Your task to perform on an android device: check android version Image 0: 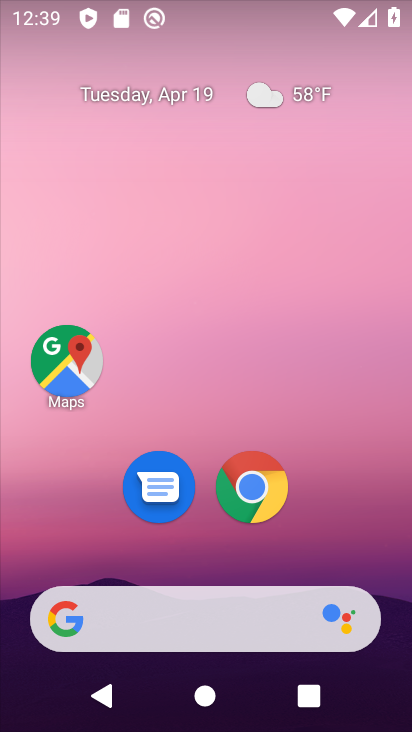
Step 0: drag from (206, 714) to (207, 74)
Your task to perform on an android device: check android version Image 1: 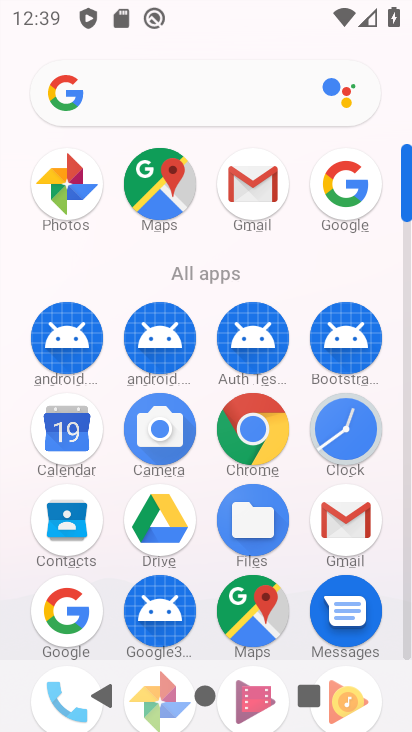
Step 1: drag from (202, 628) to (206, 218)
Your task to perform on an android device: check android version Image 2: 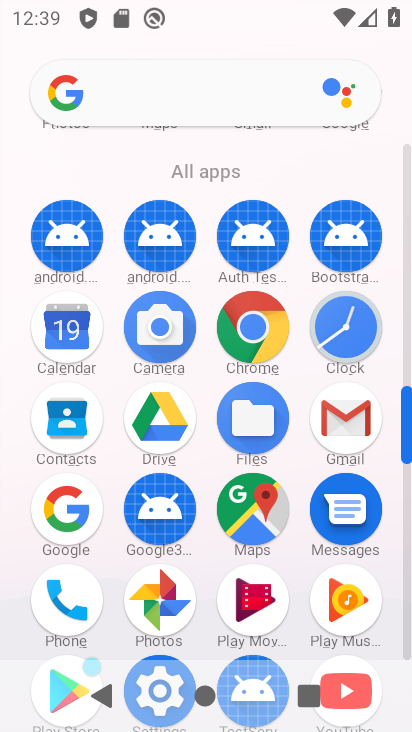
Step 2: drag from (297, 634) to (241, 99)
Your task to perform on an android device: check android version Image 3: 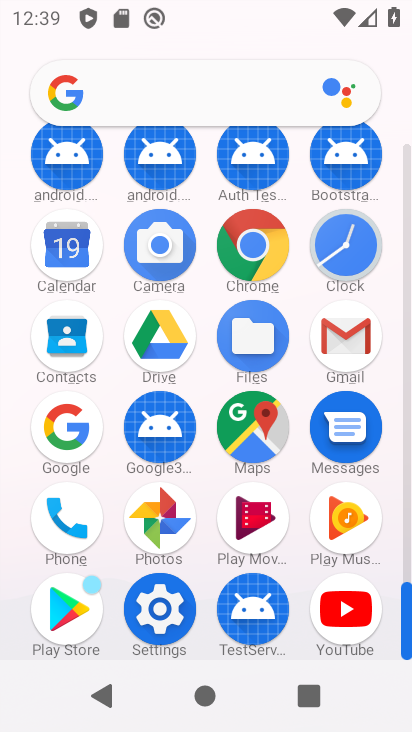
Step 3: click (162, 611)
Your task to perform on an android device: check android version Image 4: 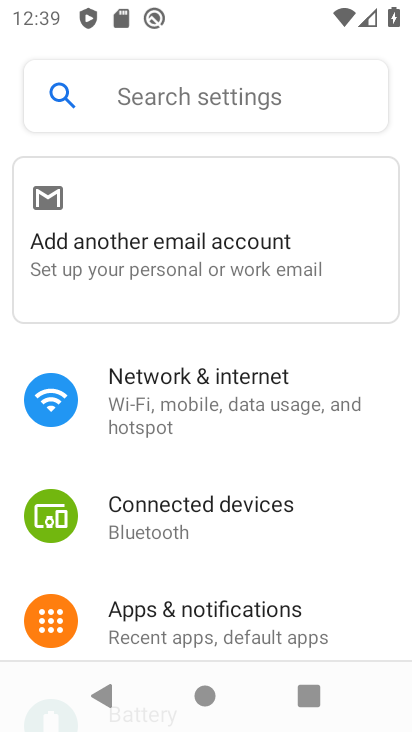
Step 4: drag from (225, 590) to (230, 56)
Your task to perform on an android device: check android version Image 5: 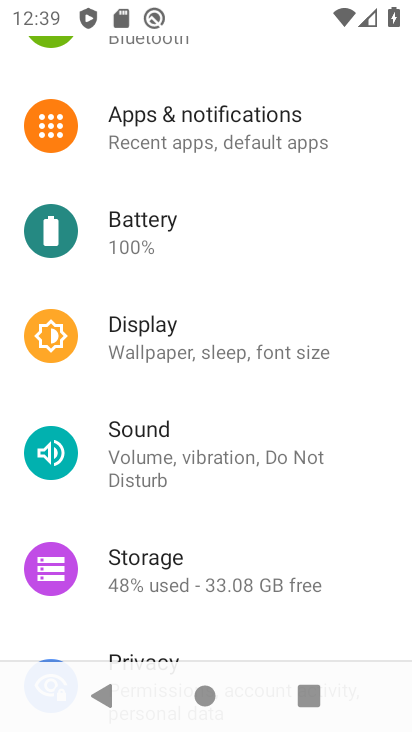
Step 5: drag from (216, 610) to (217, 105)
Your task to perform on an android device: check android version Image 6: 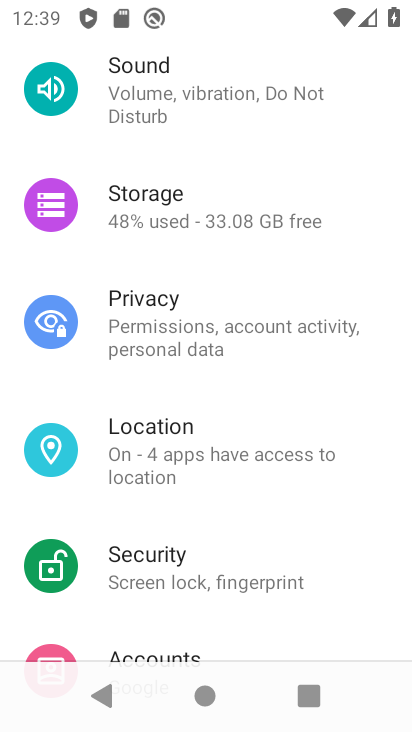
Step 6: drag from (196, 626) to (198, 115)
Your task to perform on an android device: check android version Image 7: 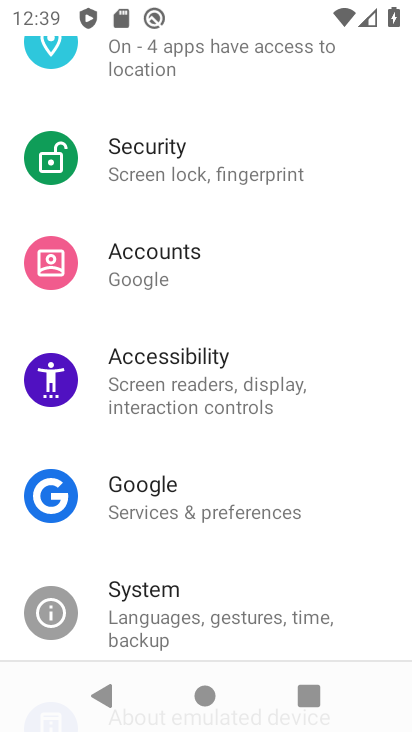
Step 7: drag from (180, 632) to (183, 77)
Your task to perform on an android device: check android version Image 8: 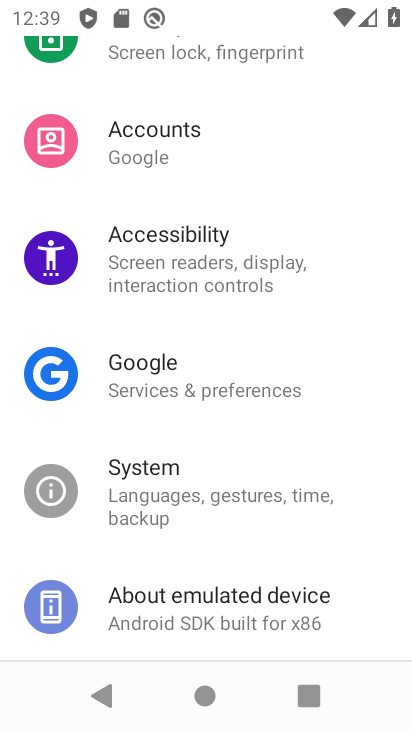
Step 8: click (189, 612)
Your task to perform on an android device: check android version Image 9: 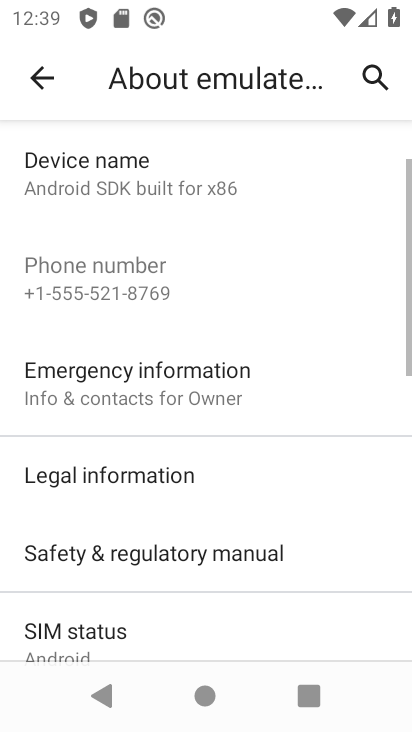
Step 9: drag from (188, 617) to (180, 216)
Your task to perform on an android device: check android version Image 10: 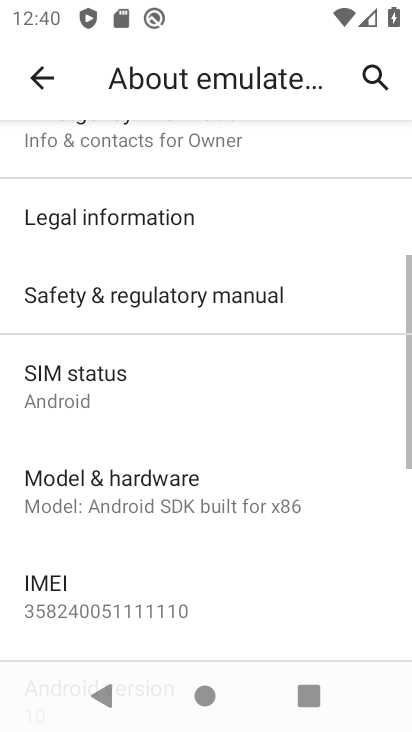
Step 10: drag from (164, 627) to (167, 120)
Your task to perform on an android device: check android version Image 11: 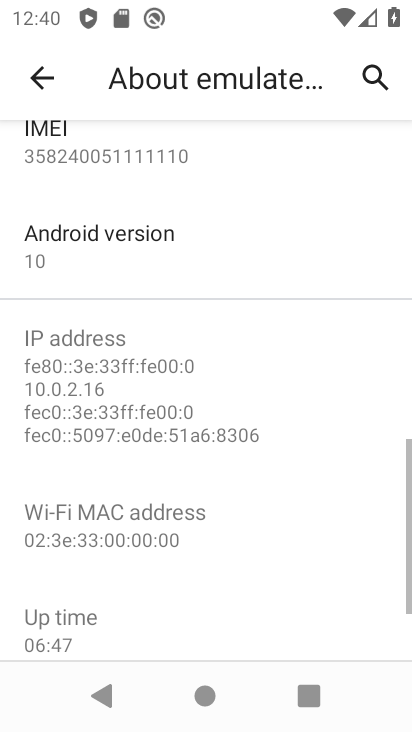
Step 11: click (105, 239)
Your task to perform on an android device: check android version Image 12: 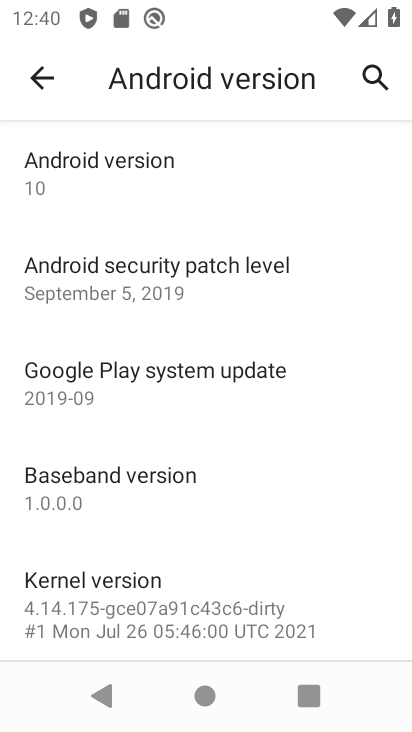
Step 12: click (59, 167)
Your task to perform on an android device: check android version Image 13: 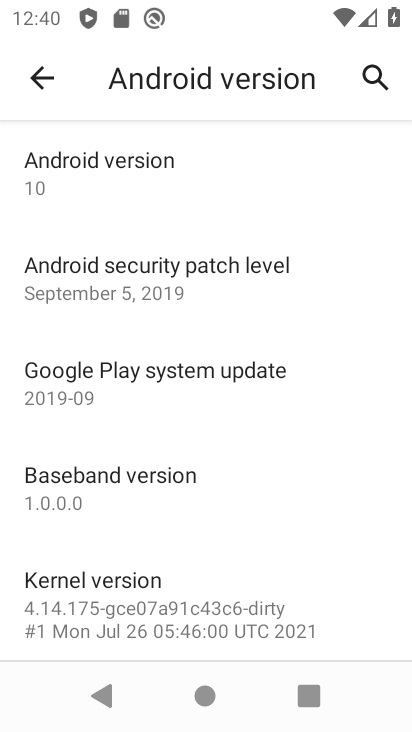
Step 13: task complete